Your task to perform on an android device: Go to Android settings Image 0: 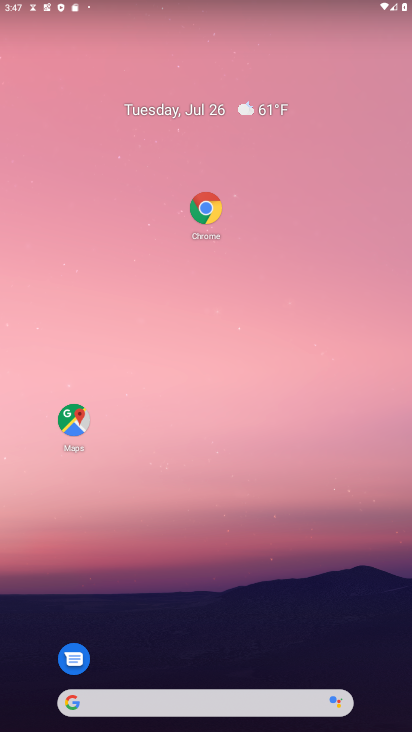
Step 0: drag from (196, 555) to (228, 102)
Your task to perform on an android device: Go to Android settings Image 1: 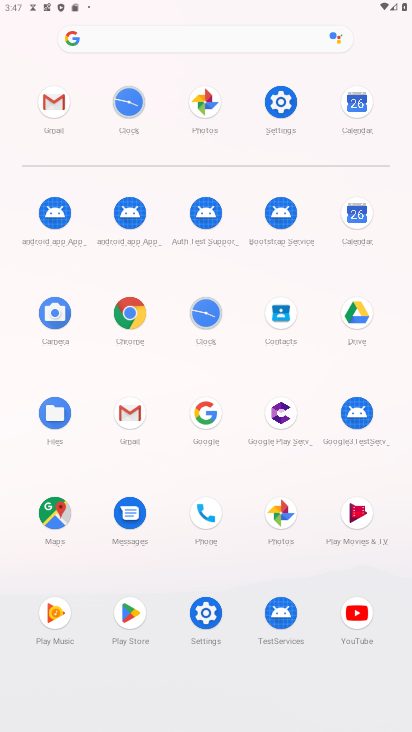
Step 1: click (280, 99)
Your task to perform on an android device: Go to Android settings Image 2: 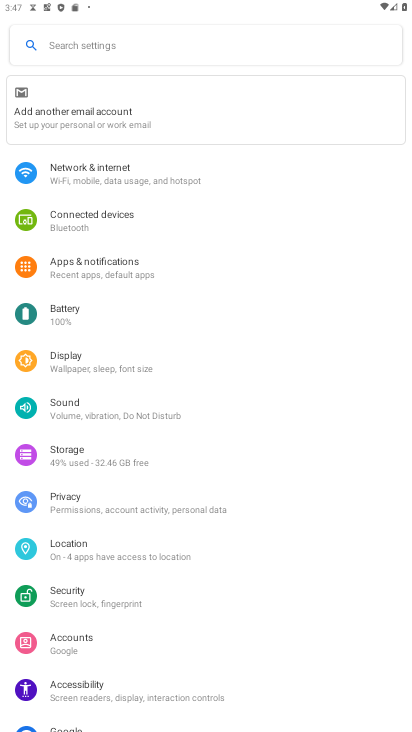
Step 2: drag from (130, 625) to (82, 278)
Your task to perform on an android device: Go to Android settings Image 3: 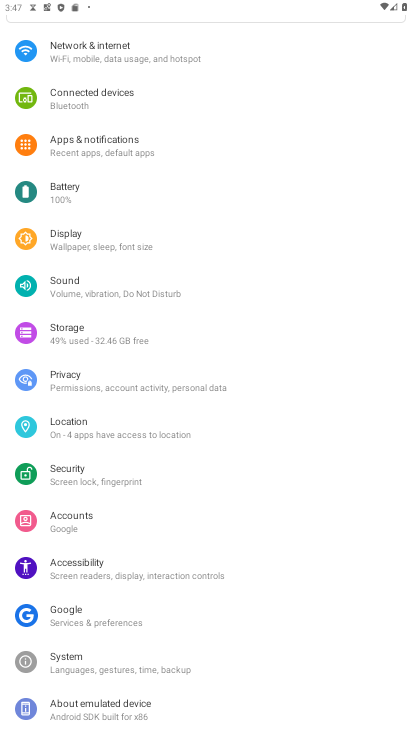
Step 3: click (62, 709)
Your task to perform on an android device: Go to Android settings Image 4: 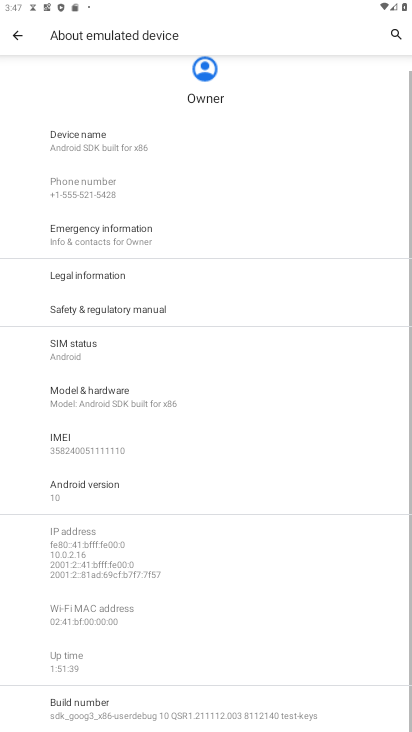
Step 4: task complete